Your task to perform on an android device: visit the assistant section in the google photos Image 0: 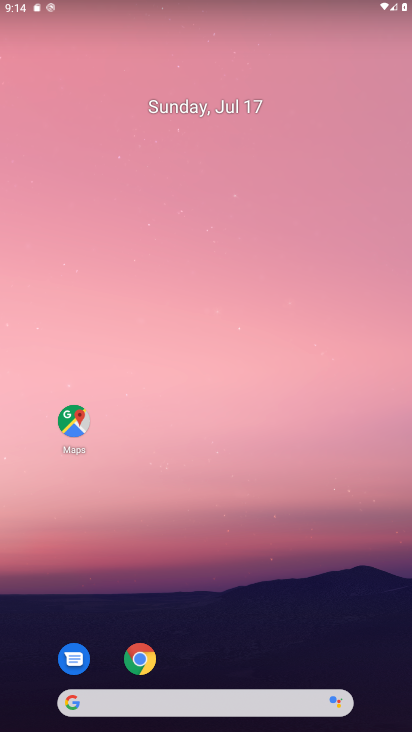
Step 0: drag from (239, 699) to (330, 331)
Your task to perform on an android device: visit the assistant section in the google photos Image 1: 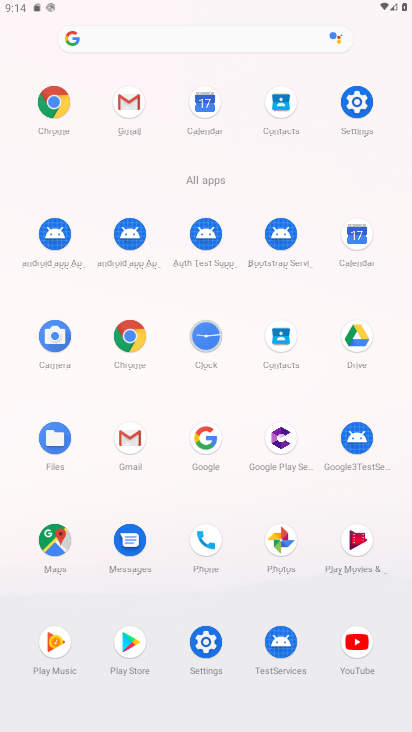
Step 1: click (280, 538)
Your task to perform on an android device: visit the assistant section in the google photos Image 2: 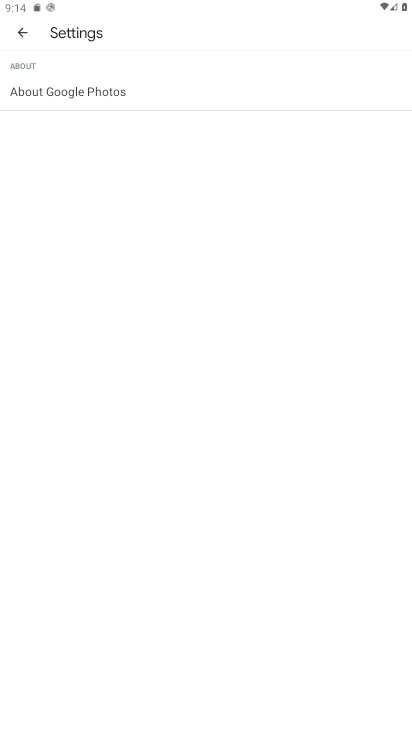
Step 2: click (26, 35)
Your task to perform on an android device: visit the assistant section in the google photos Image 3: 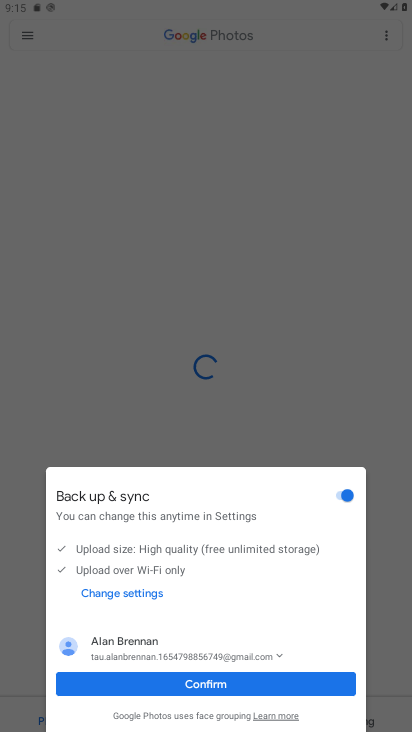
Step 3: click (198, 672)
Your task to perform on an android device: visit the assistant section in the google photos Image 4: 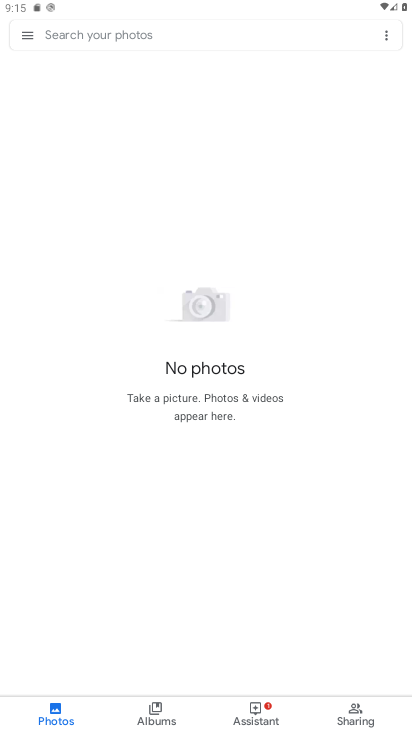
Step 4: click (256, 719)
Your task to perform on an android device: visit the assistant section in the google photos Image 5: 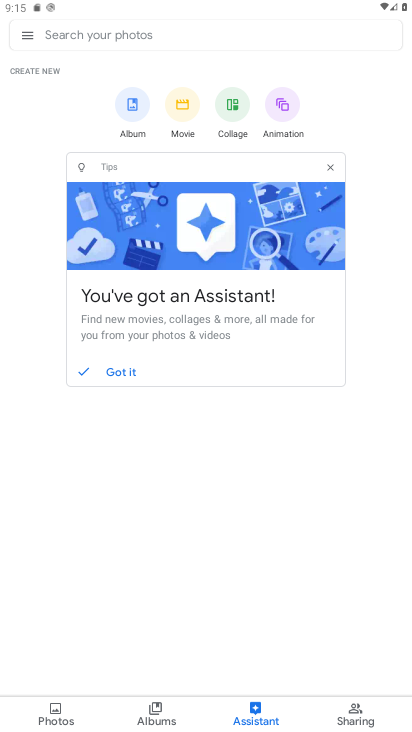
Step 5: task complete